Your task to perform on an android device: turn on improve location accuracy Image 0: 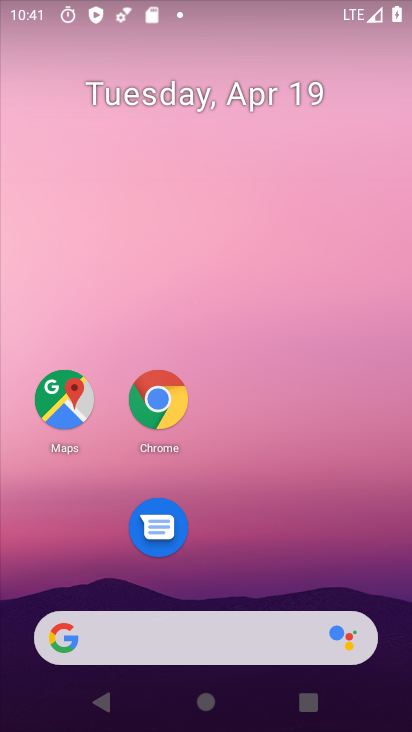
Step 0: drag from (263, 661) to (330, 159)
Your task to perform on an android device: turn on improve location accuracy Image 1: 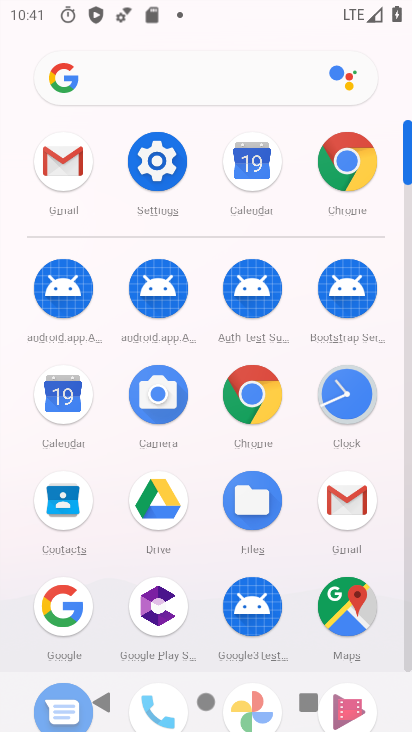
Step 1: click (171, 177)
Your task to perform on an android device: turn on improve location accuracy Image 2: 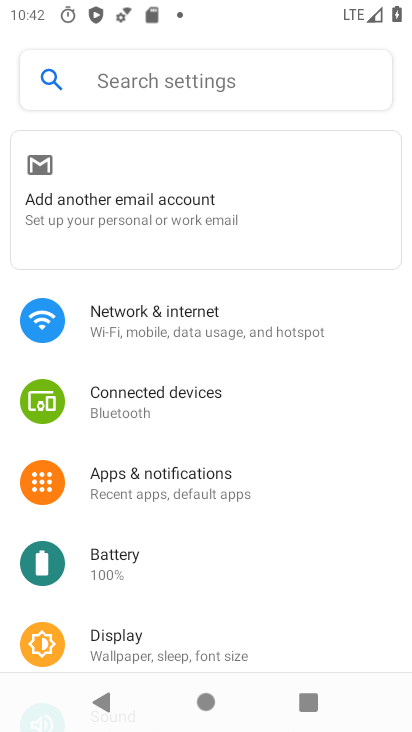
Step 2: click (177, 93)
Your task to perform on an android device: turn on improve location accuracy Image 3: 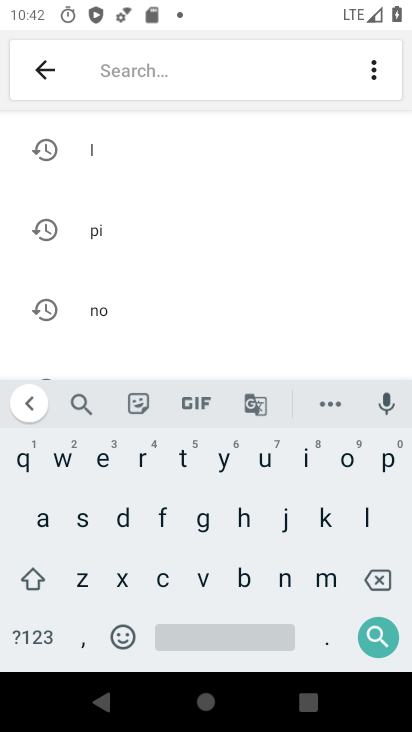
Step 3: click (118, 154)
Your task to perform on an android device: turn on improve location accuracy Image 4: 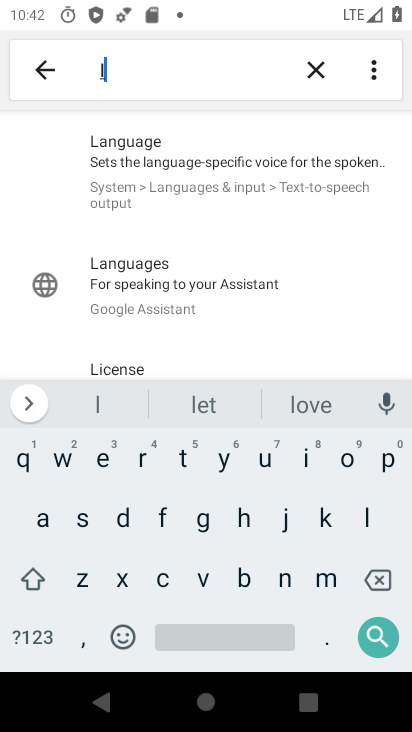
Step 4: drag from (168, 270) to (248, 128)
Your task to perform on an android device: turn on improve location accuracy Image 5: 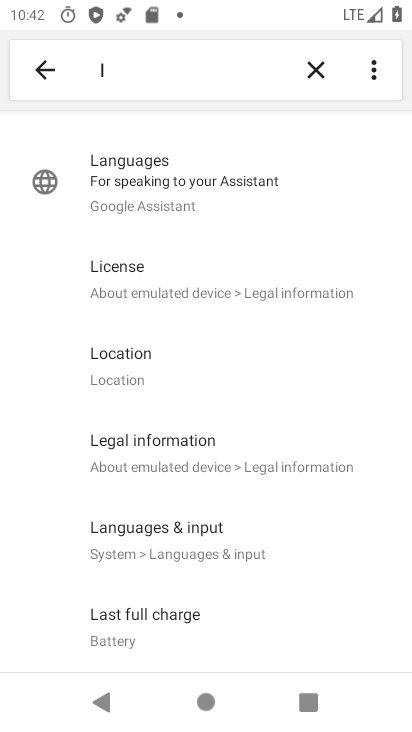
Step 5: click (142, 362)
Your task to perform on an android device: turn on improve location accuracy Image 6: 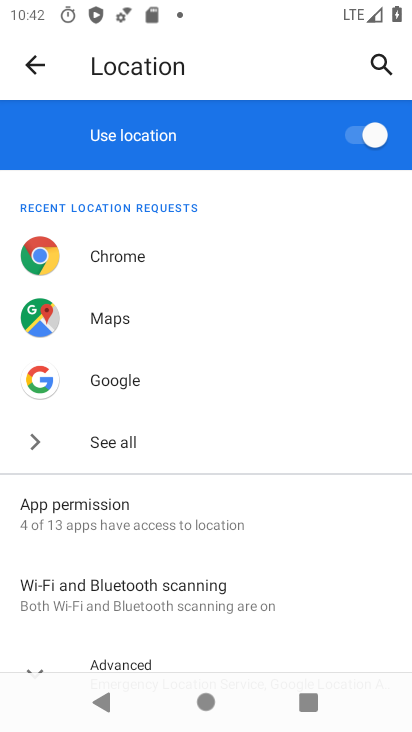
Step 6: drag from (191, 520) to (332, 207)
Your task to perform on an android device: turn on improve location accuracy Image 7: 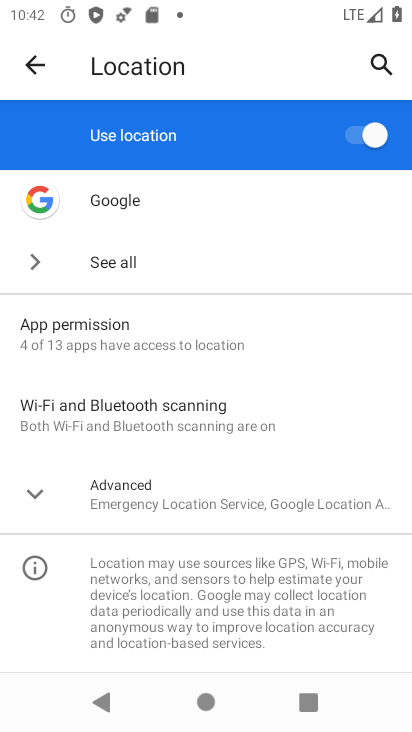
Step 7: click (55, 498)
Your task to perform on an android device: turn on improve location accuracy Image 8: 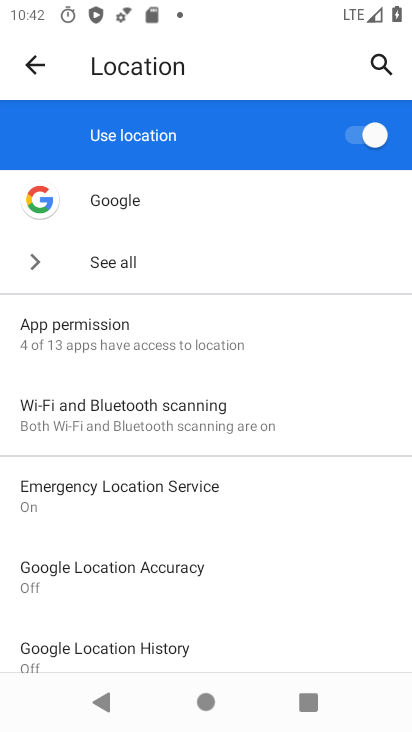
Step 8: click (145, 565)
Your task to perform on an android device: turn on improve location accuracy Image 9: 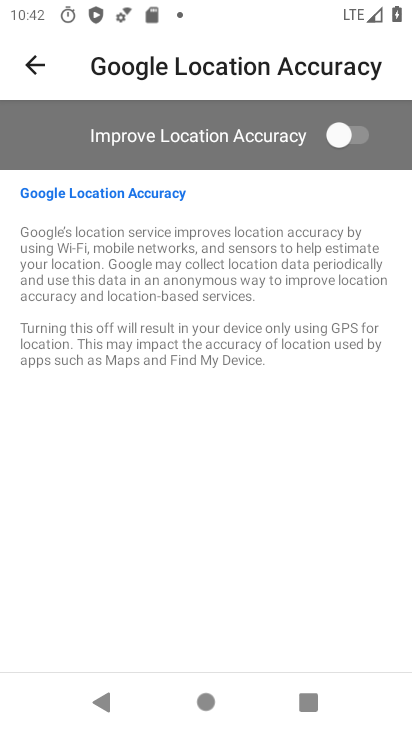
Step 9: click (353, 139)
Your task to perform on an android device: turn on improve location accuracy Image 10: 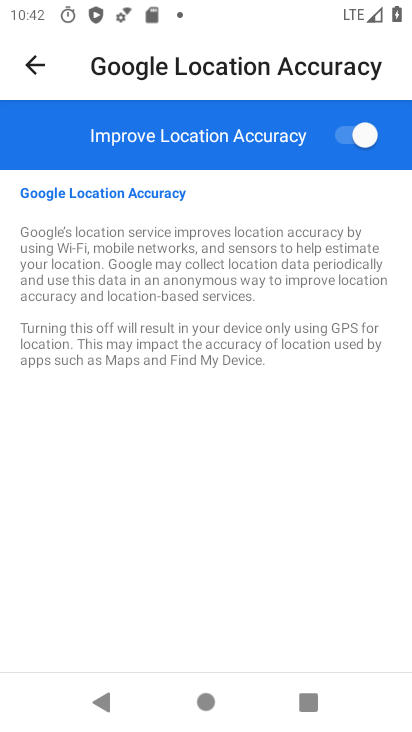
Step 10: task complete